Your task to perform on an android device: check the backup settings in the google photos Image 0: 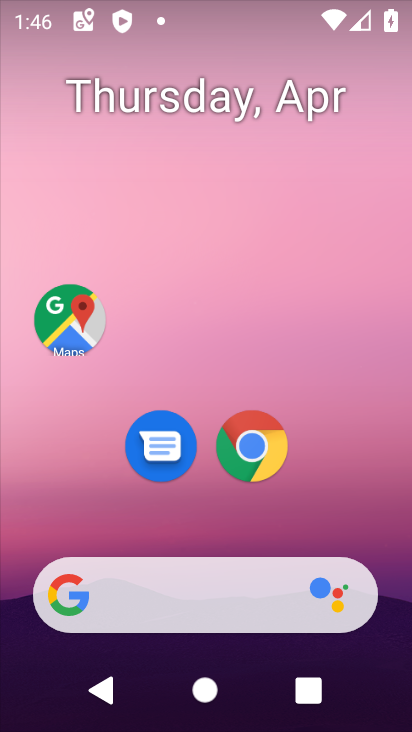
Step 0: drag from (312, 508) to (312, 210)
Your task to perform on an android device: check the backup settings in the google photos Image 1: 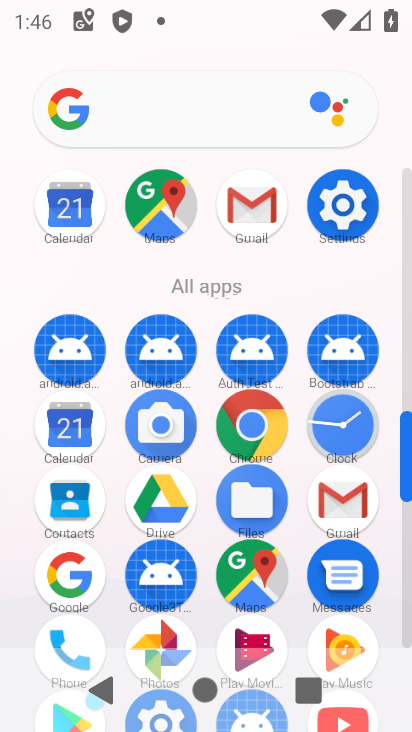
Step 1: click (161, 633)
Your task to perform on an android device: check the backup settings in the google photos Image 2: 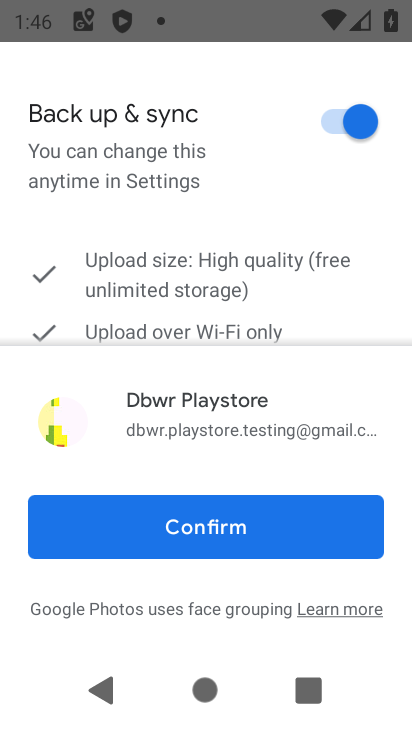
Step 2: click (244, 538)
Your task to perform on an android device: check the backup settings in the google photos Image 3: 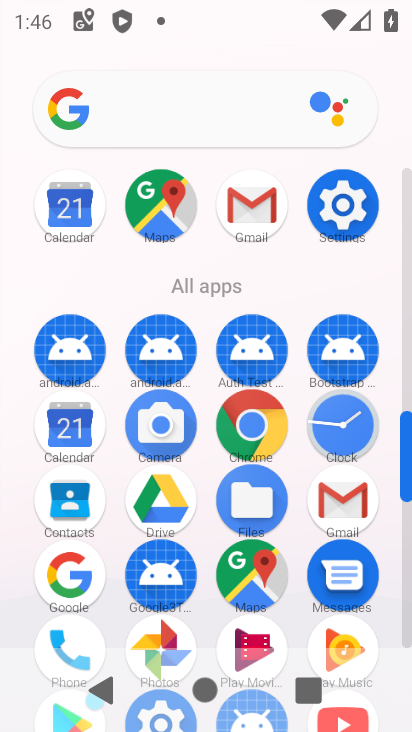
Step 3: drag from (239, 548) to (227, 348)
Your task to perform on an android device: check the backup settings in the google photos Image 4: 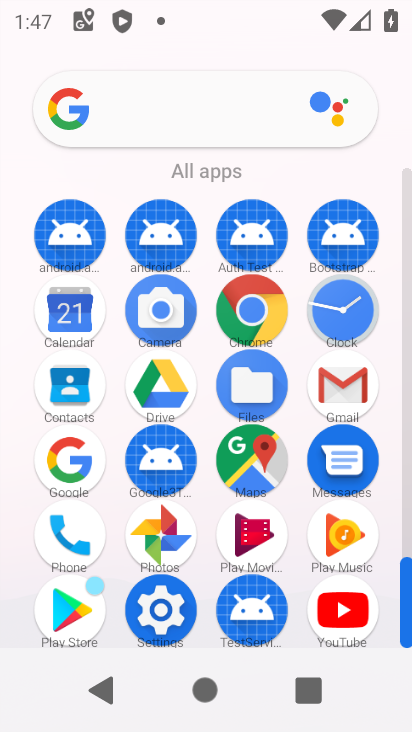
Step 4: click (159, 547)
Your task to perform on an android device: check the backup settings in the google photos Image 5: 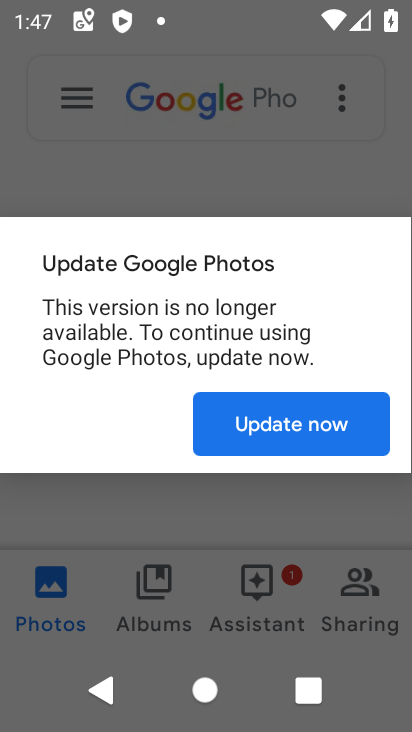
Step 5: click (276, 440)
Your task to perform on an android device: check the backup settings in the google photos Image 6: 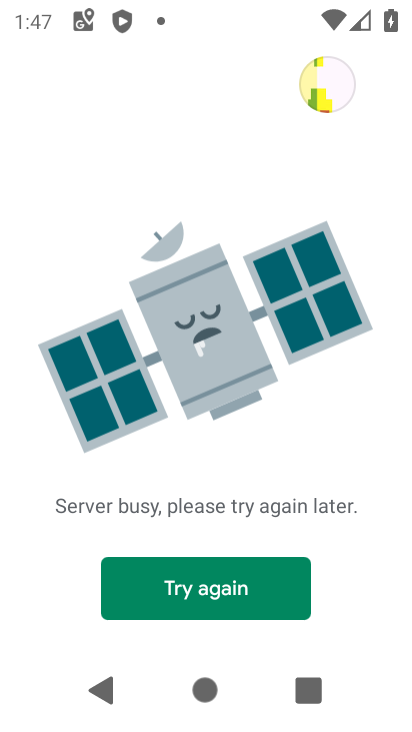
Step 6: click (229, 588)
Your task to perform on an android device: check the backup settings in the google photos Image 7: 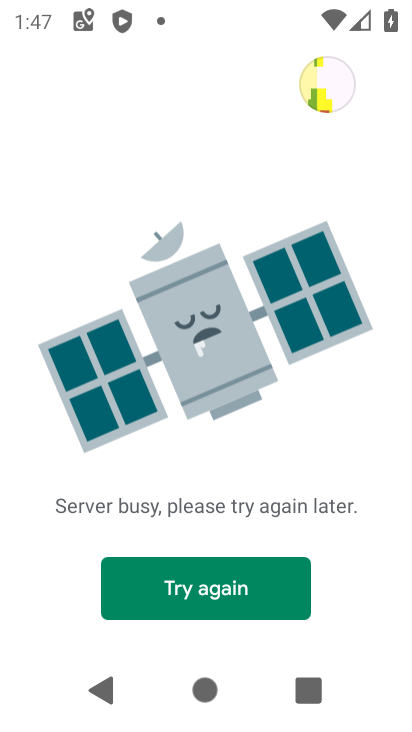
Step 7: task complete